Your task to perform on an android device: open a bookmark in the chrome app Image 0: 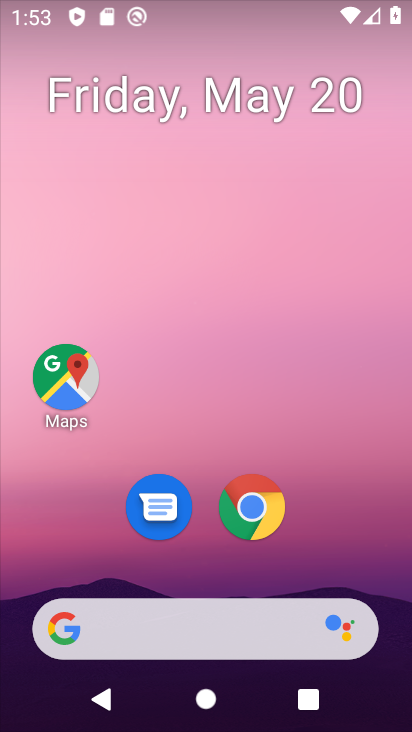
Step 0: click (253, 491)
Your task to perform on an android device: open a bookmark in the chrome app Image 1: 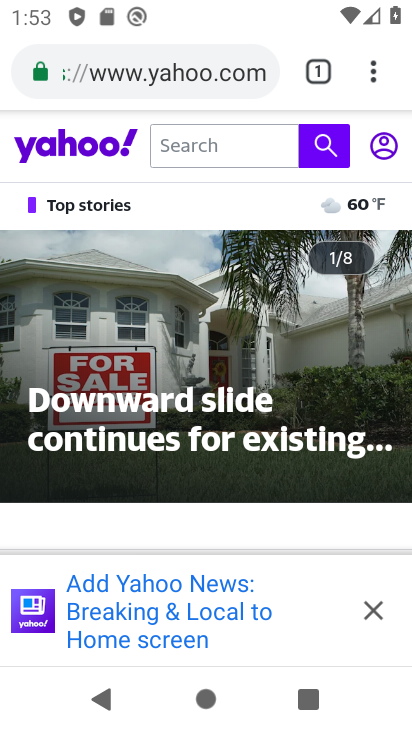
Step 1: click (371, 57)
Your task to perform on an android device: open a bookmark in the chrome app Image 2: 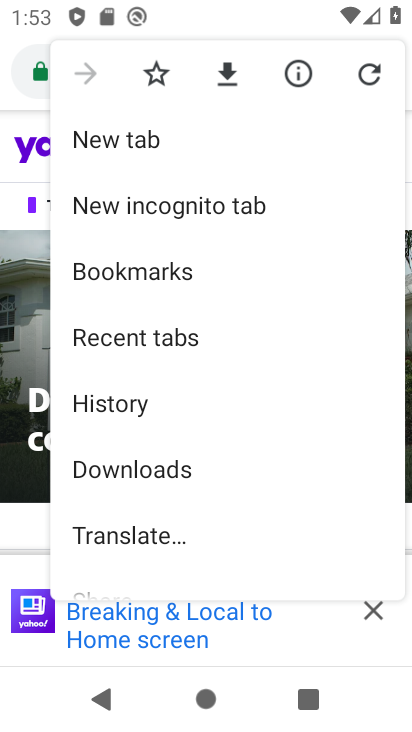
Step 2: click (154, 284)
Your task to perform on an android device: open a bookmark in the chrome app Image 3: 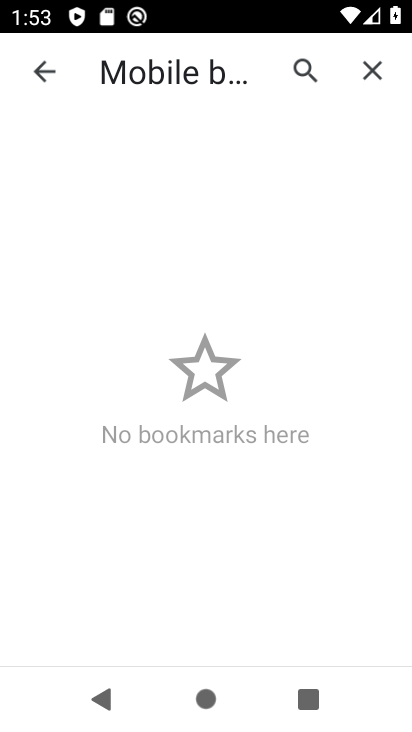
Step 3: task complete